Your task to perform on an android device: turn off notifications settings in the gmail app Image 0: 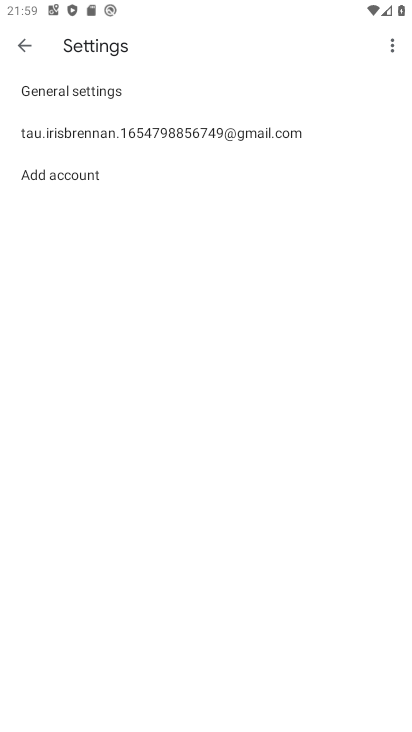
Step 0: press home button
Your task to perform on an android device: turn off notifications settings in the gmail app Image 1: 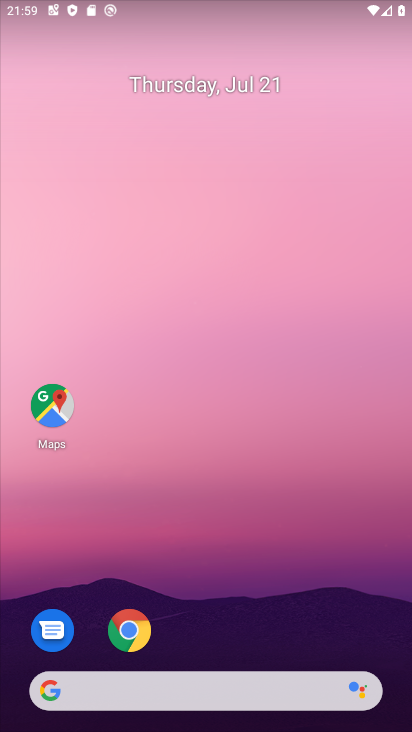
Step 1: drag from (266, 662) to (213, 5)
Your task to perform on an android device: turn off notifications settings in the gmail app Image 2: 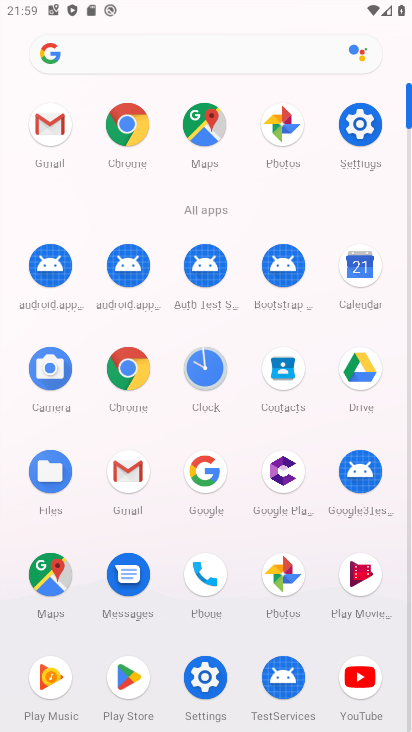
Step 2: click (126, 471)
Your task to perform on an android device: turn off notifications settings in the gmail app Image 3: 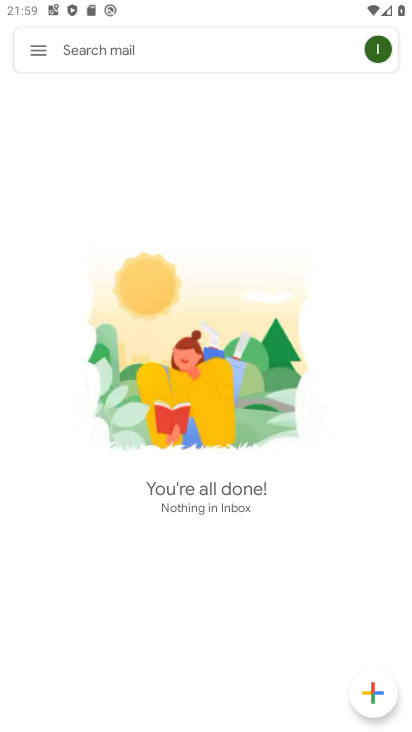
Step 3: drag from (36, 51) to (74, 414)
Your task to perform on an android device: turn off notifications settings in the gmail app Image 4: 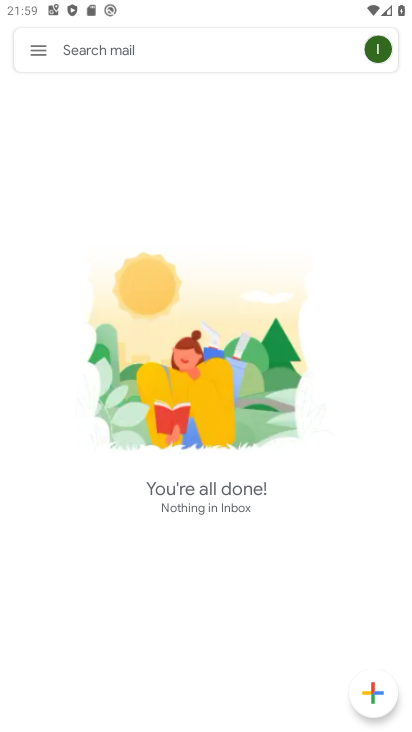
Step 4: click (39, 49)
Your task to perform on an android device: turn off notifications settings in the gmail app Image 5: 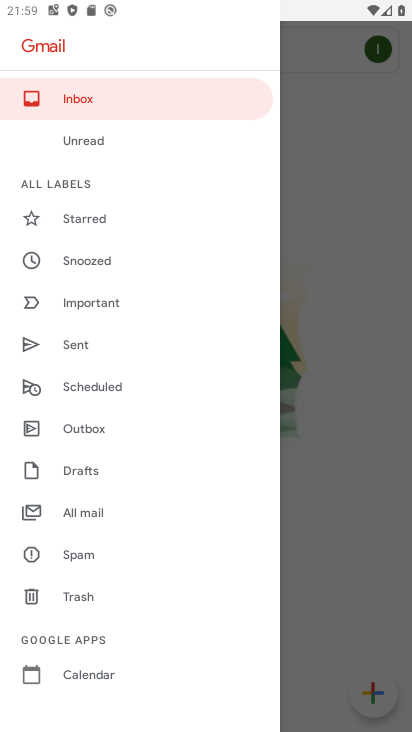
Step 5: drag from (89, 565) to (61, 66)
Your task to perform on an android device: turn off notifications settings in the gmail app Image 6: 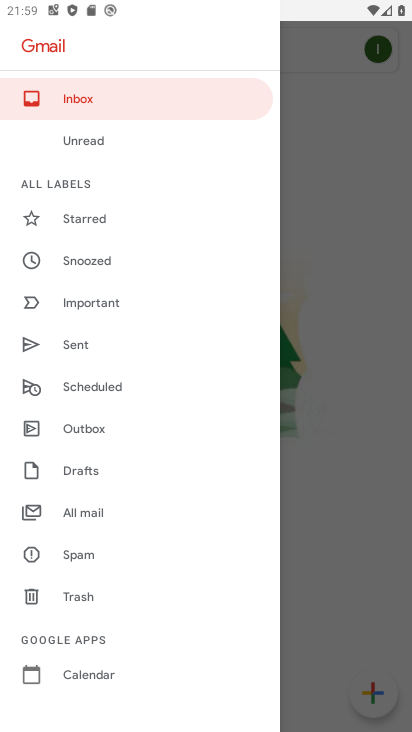
Step 6: drag from (138, 616) to (118, 155)
Your task to perform on an android device: turn off notifications settings in the gmail app Image 7: 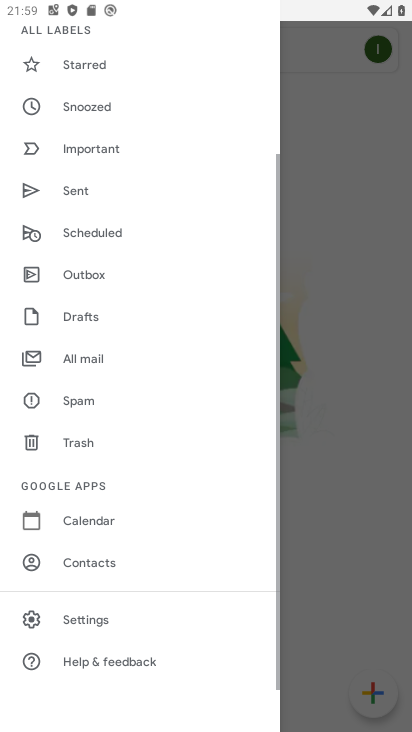
Step 7: click (111, 615)
Your task to perform on an android device: turn off notifications settings in the gmail app Image 8: 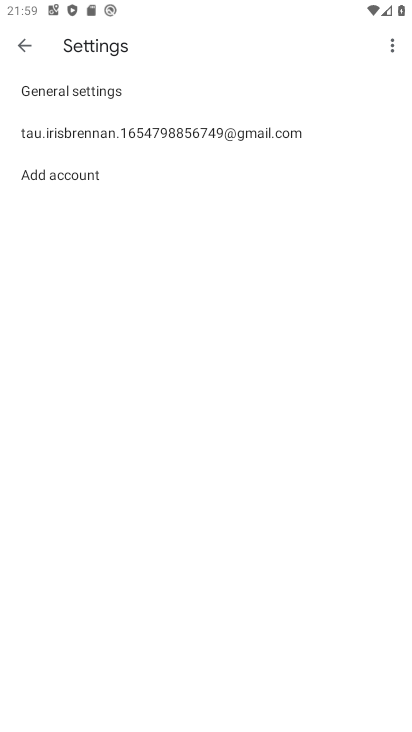
Step 8: click (56, 84)
Your task to perform on an android device: turn off notifications settings in the gmail app Image 9: 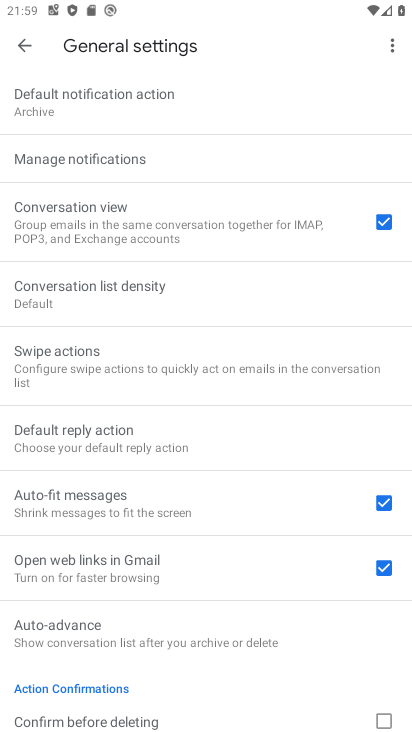
Step 9: click (76, 169)
Your task to perform on an android device: turn off notifications settings in the gmail app Image 10: 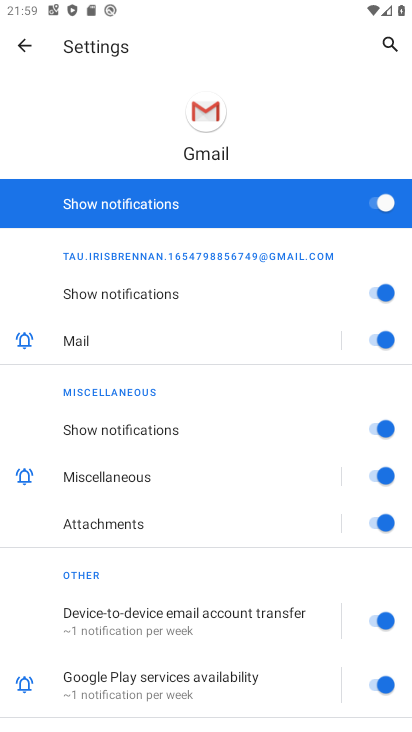
Step 10: click (373, 206)
Your task to perform on an android device: turn off notifications settings in the gmail app Image 11: 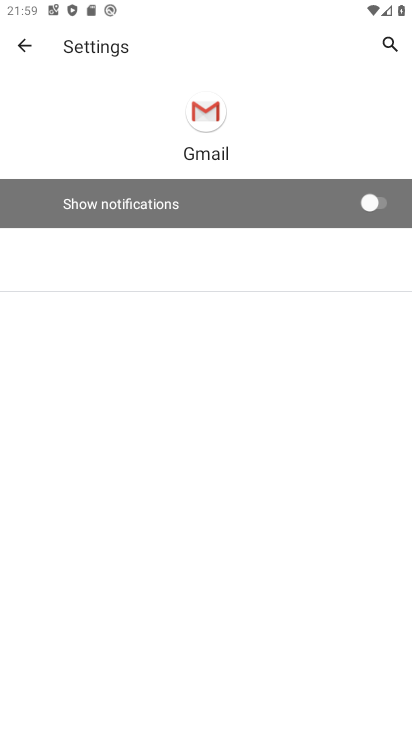
Step 11: task complete